Your task to perform on an android device: Search for seafood restaurants on Google Maps Image 0: 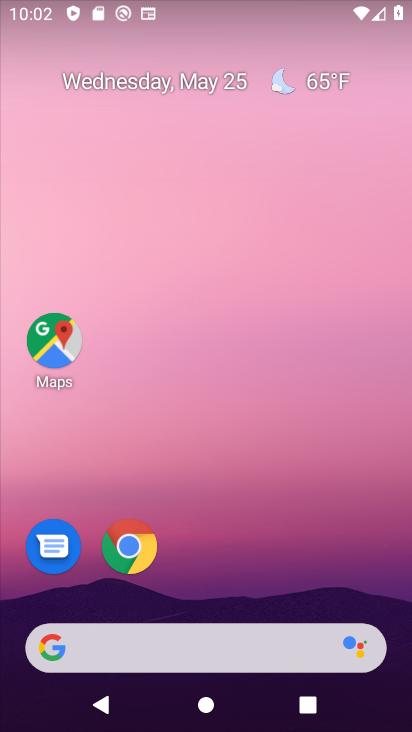
Step 0: drag from (242, 570) to (220, 30)
Your task to perform on an android device: Search for seafood restaurants on Google Maps Image 1: 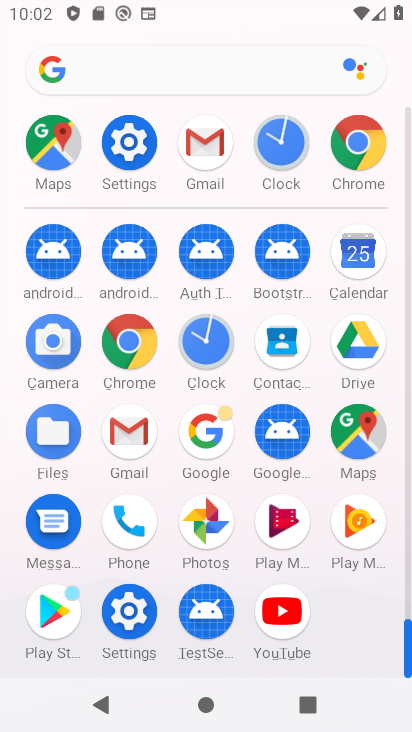
Step 1: drag from (9, 594) to (0, 263)
Your task to perform on an android device: Search for seafood restaurants on Google Maps Image 2: 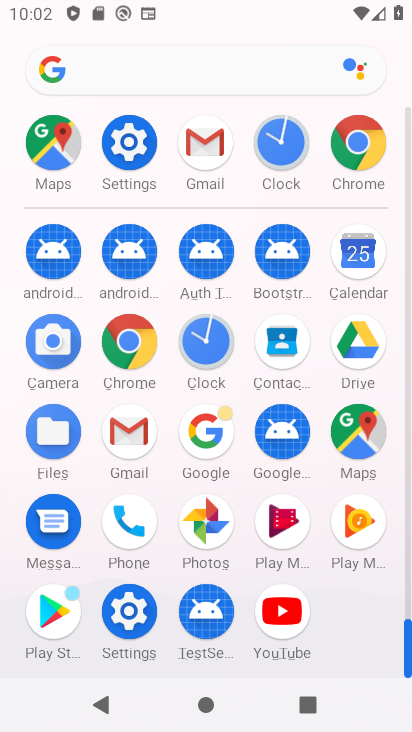
Step 2: click (352, 429)
Your task to perform on an android device: Search for seafood restaurants on Google Maps Image 3: 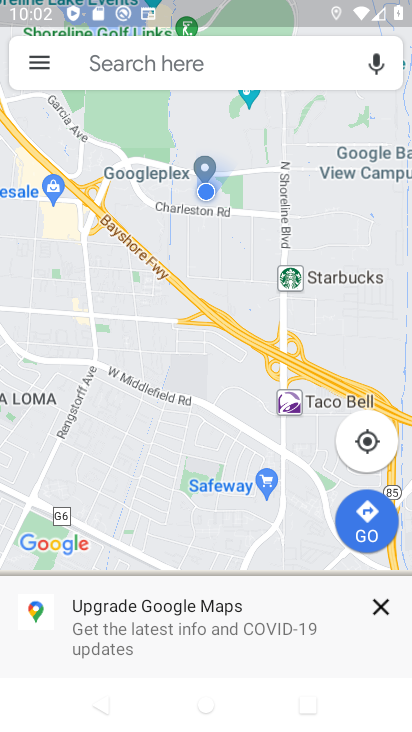
Step 3: click (220, 63)
Your task to perform on an android device: Search for seafood restaurants on Google Maps Image 4: 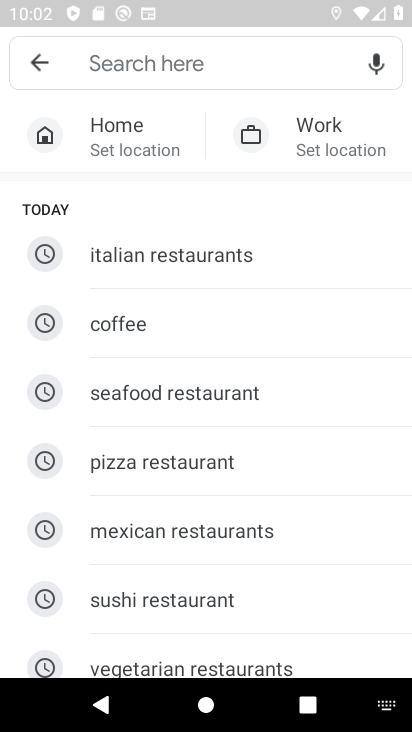
Step 4: click (186, 397)
Your task to perform on an android device: Search for seafood restaurants on Google Maps Image 5: 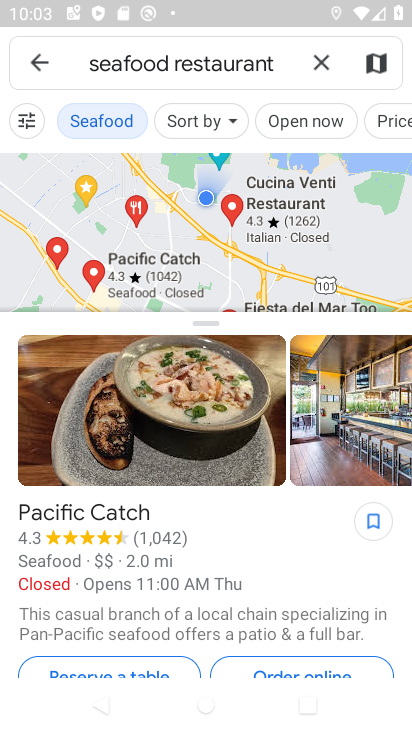
Step 5: task complete